Your task to perform on an android device: clear history in the chrome app Image 0: 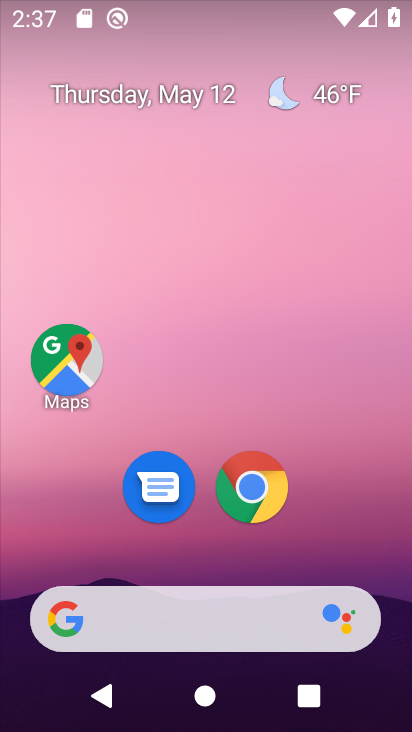
Step 0: click (246, 495)
Your task to perform on an android device: clear history in the chrome app Image 1: 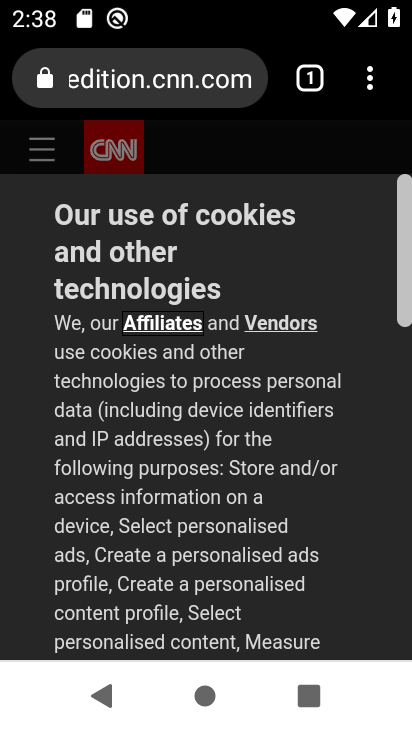
Step 1: click (364, 80)
Your task to perform on an android device: clear history in the chrome app Image 2: 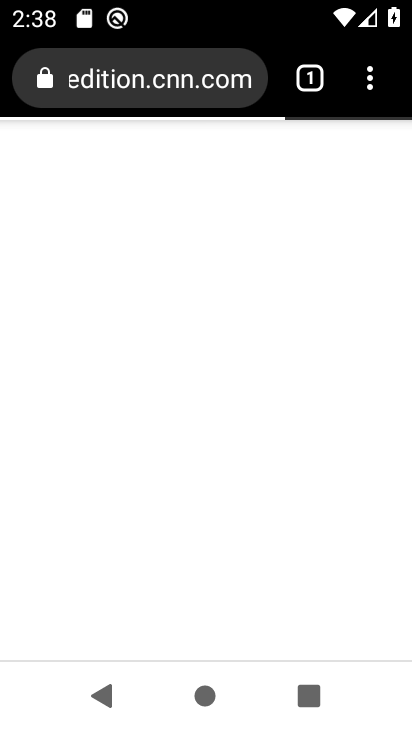
Step 2: click (364, 80)
Your task to perform on an android device: clear history in the chrome app Image 3: 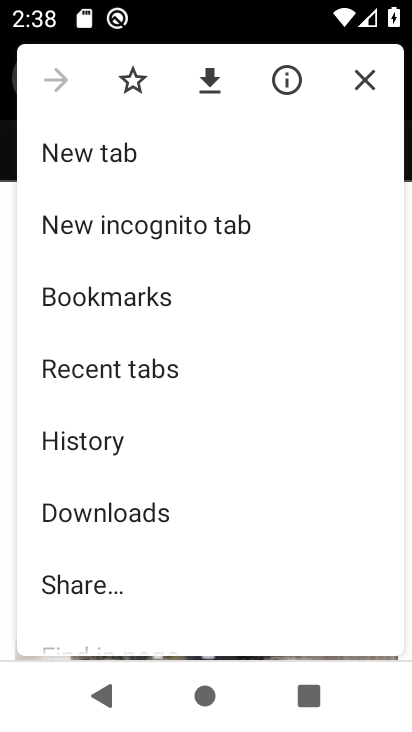
Step 3: click (131, 443)
Your task to perform on an android device: clear history in the chrome app Image 4: 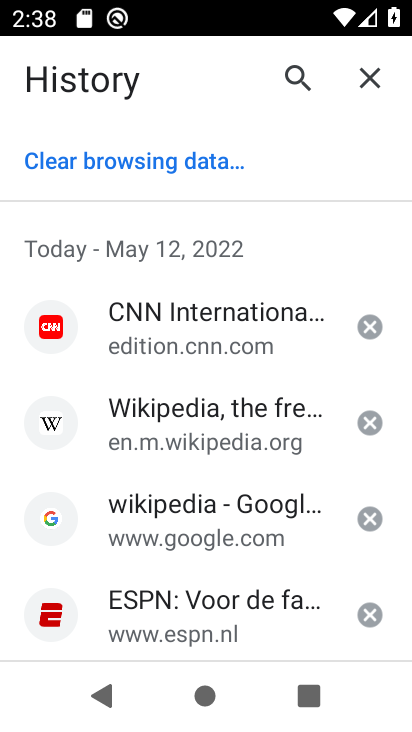
Step 4: click (120, 154)
Your task to perform on an android device: clear history in the chrome app Image 5: 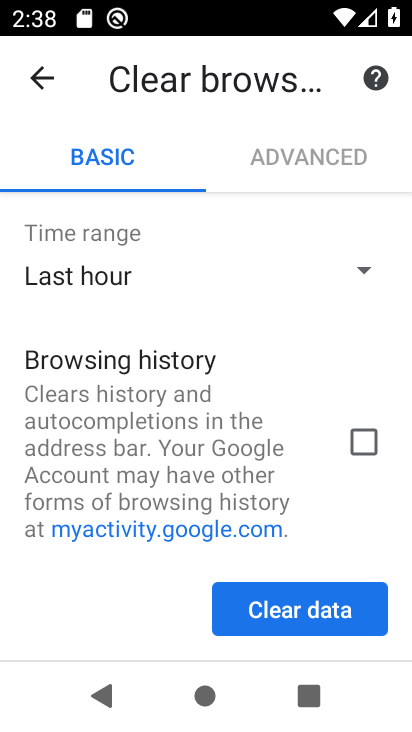
Step 5: click (353, 509)
Your task to perform on an android device: clear history in the chrome app Image 6: 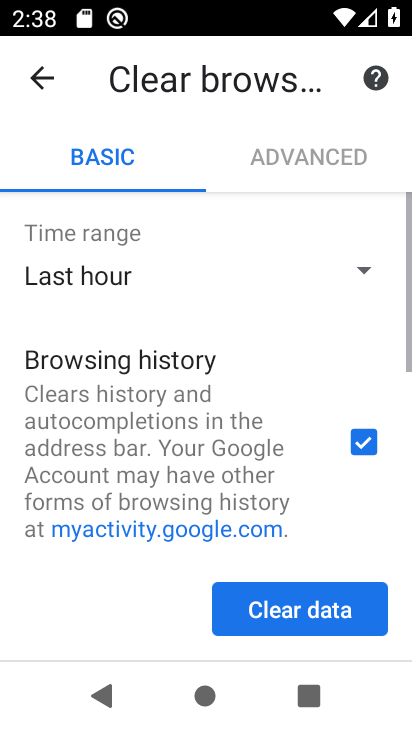
Step 6: drag from (201, 557) to (215, 212)
Your task to perform on an android device: clear history in the chrome app Image 7: 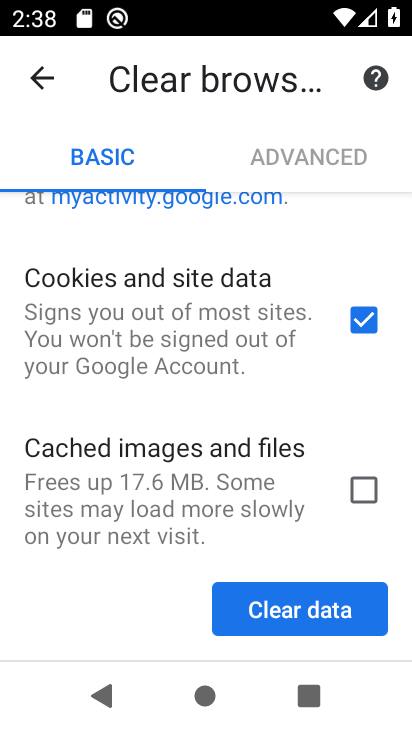
Step 7: click (267, 533)
Your task to perform on an android device: clear history in the chrome app Image 8: 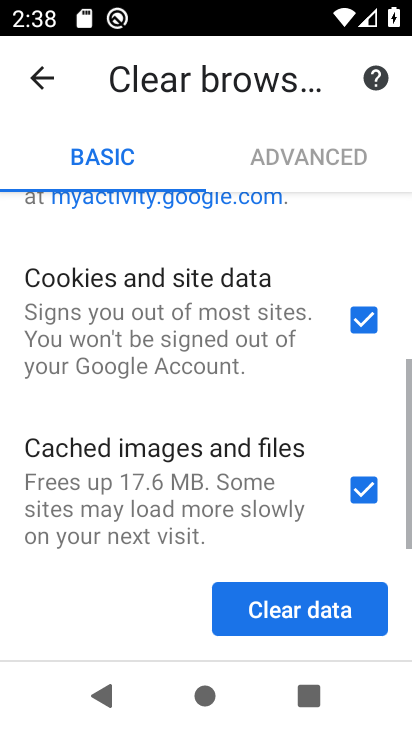
Step 8: click (309, 594)
Your task to perform on an android device: clear history in the chrome app Image 9: 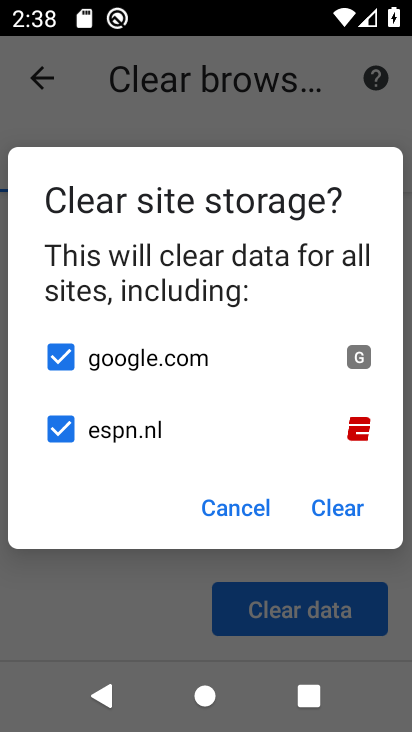
Step 9: click (311, 509)
Your task to perform on an android device: clear history in the chrome app Image 10: 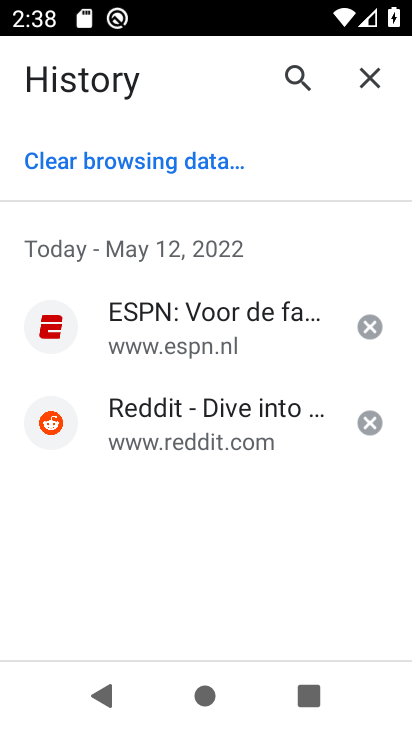
Step 10: task complete